Your task to perform on an android device: check google app version Image 0: 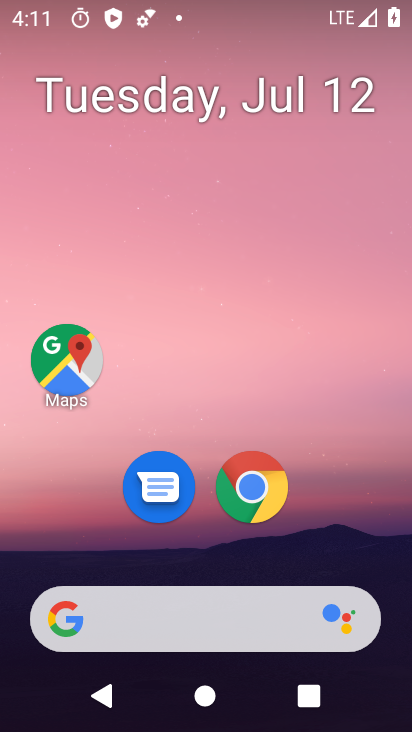
Step 0: drag from (278, 574) to (306, 122)
Your task to perform on an android device: check google app version Image 1: 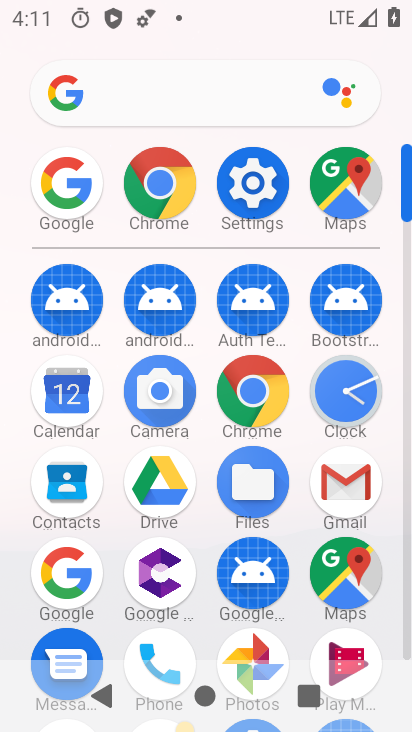
Step 1: click (270, 200)
Your task to perform on an android device: check google app version Image 2: 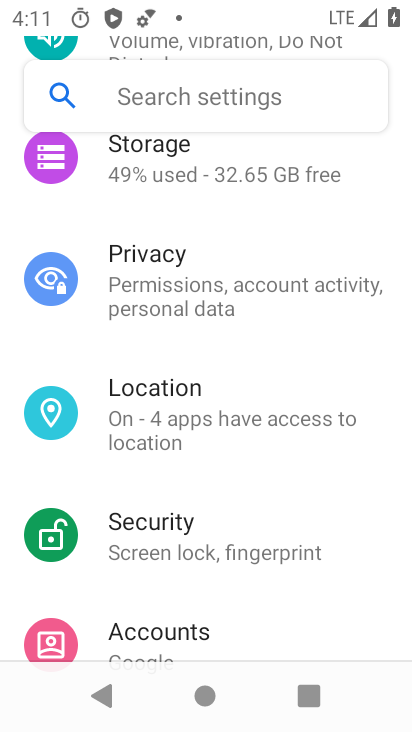
Step 2: press home button
Your task to perform on an android device: check google app version Image 3: 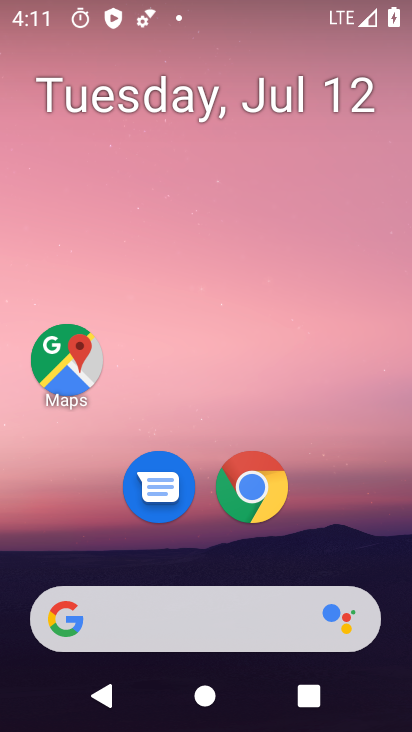
Step 3: drag from (221, 562) to (236, 76)
Your task to perform on an android device: check google app version Image 4: 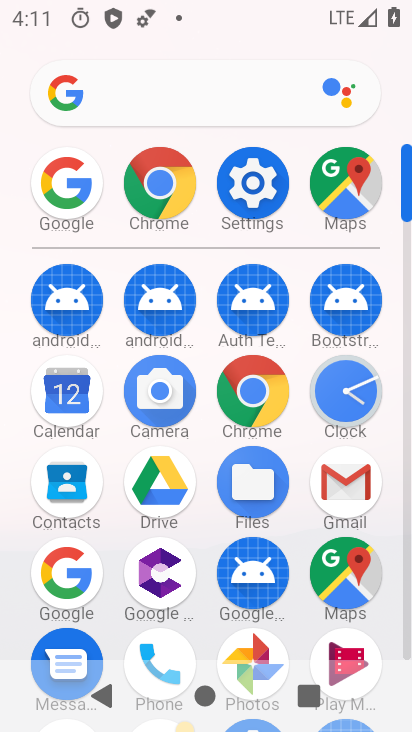
Step 4: drag from (211, 523) to (265, 156)
Your task to perform on an android device: check google app version Image 5: 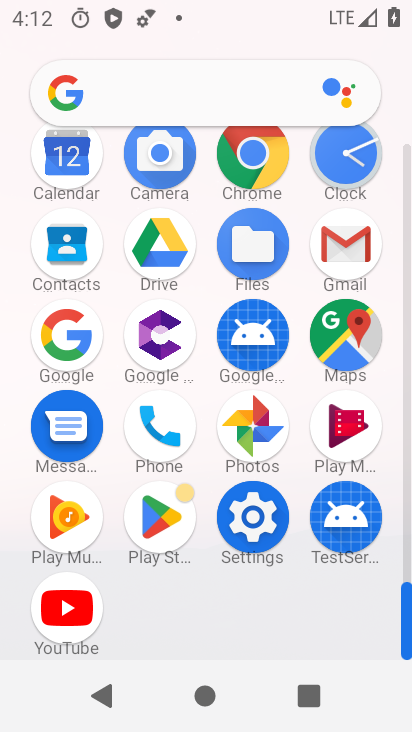
Step 5: click (85, 342)
Your task to perform on an android device: check google app version Image 6: 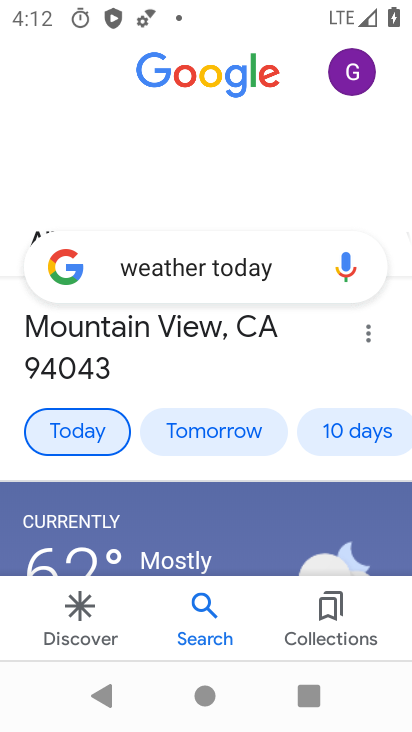
Step 6: click (351, 81)
Your task to perform on an android device: check google app version Image 7: 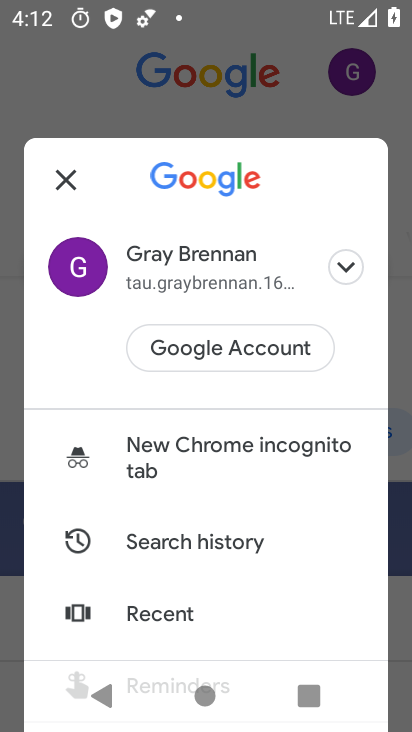
Step 7: drag from (190, 594) to (223, 252)
Your task to perform on an android device: check google app version Image 8: 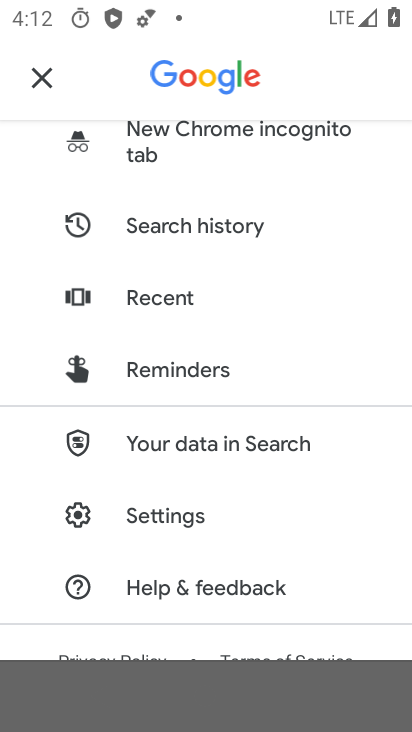
Step 8: click (182, 530)
Your task to perform on an android device: check google app version Image 9: 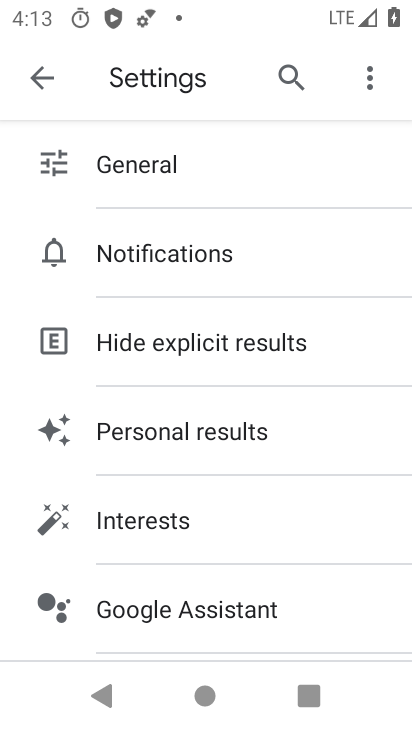
Step 9: drag from (200, 558) to (293, 153)
Your task to perform on an android device: check google app version Image 10: 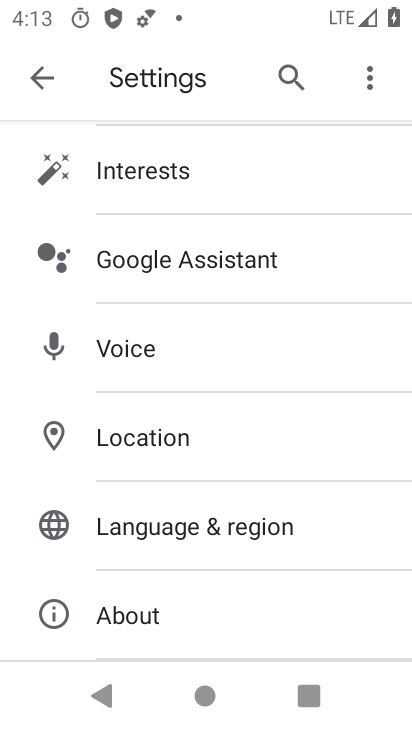
Step 10: click (187, 633)
Your task to perform on an android device: check google app version Image 11: 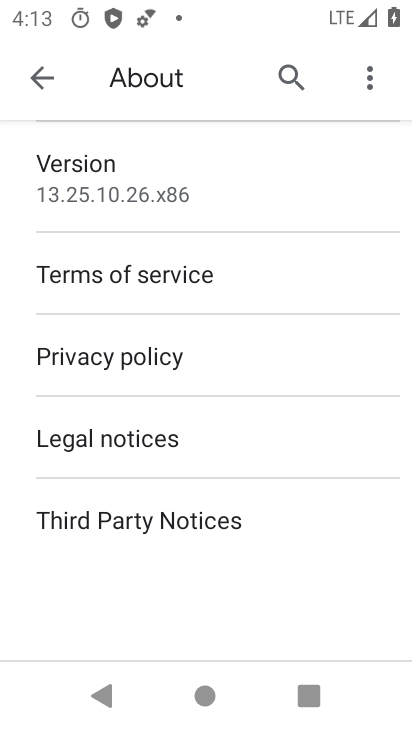
Step 11: task complete